Your task to perform on an android device: Play the last video I watched on Youtube Image 0: 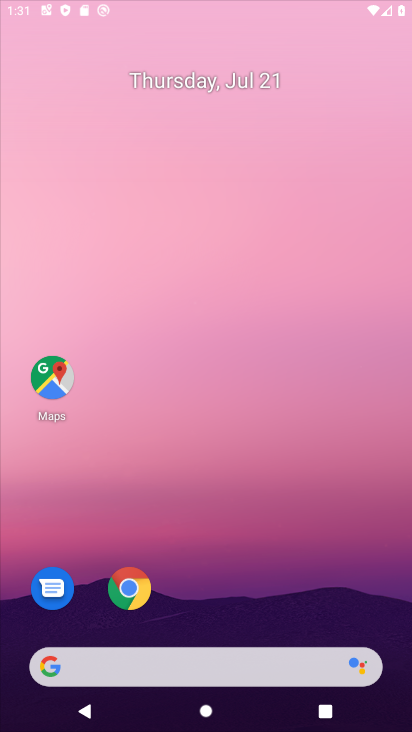
Step 0: press home button
Your task to perform on an android device: Play the last video I watched on Youtube Image 1: 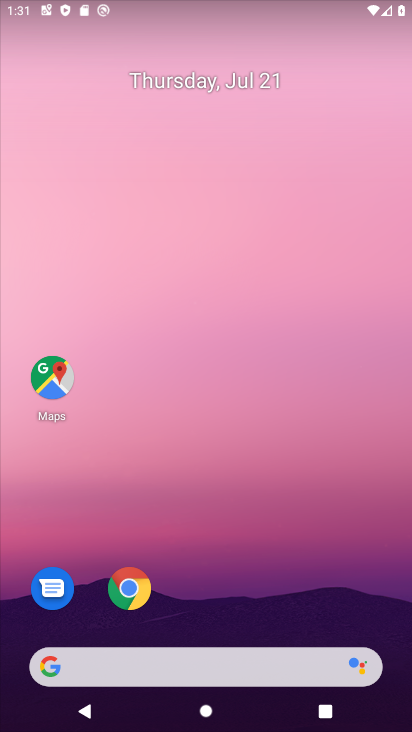
Step 1: drag from (242, 635) to (234, 28)
Your task to perform on an android device: Play the last video I watched on Youtube Image 2: 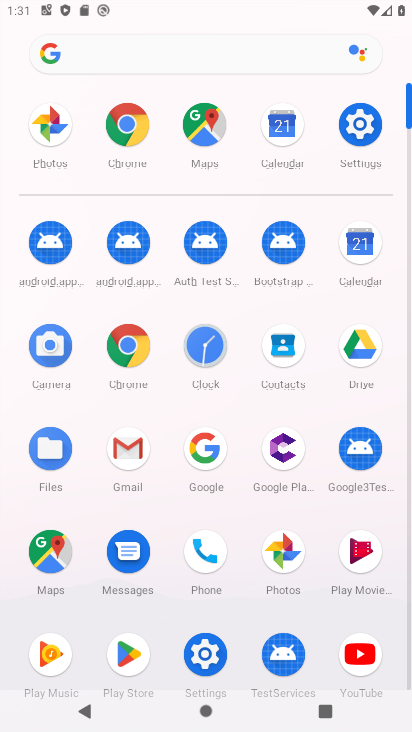
Step 2: click (351, 635)
Your task to perform on an android device: Play the last video I watched on Youtube Image 3: 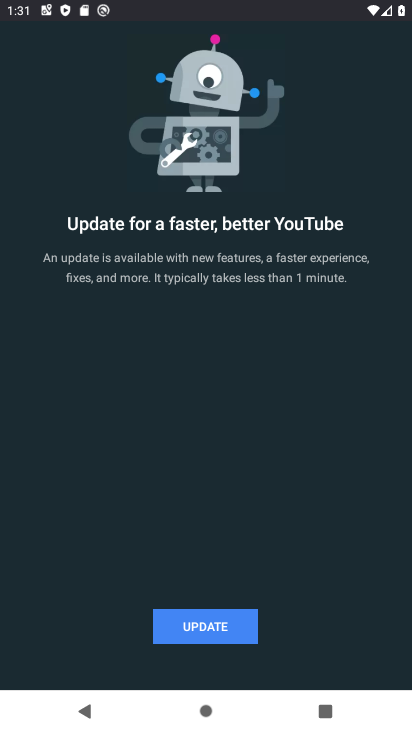
Step 3: drag from (225, 620) to (147, 620)
Your task to perform on an android device: Play the last video I watched on Youtube Image 4: 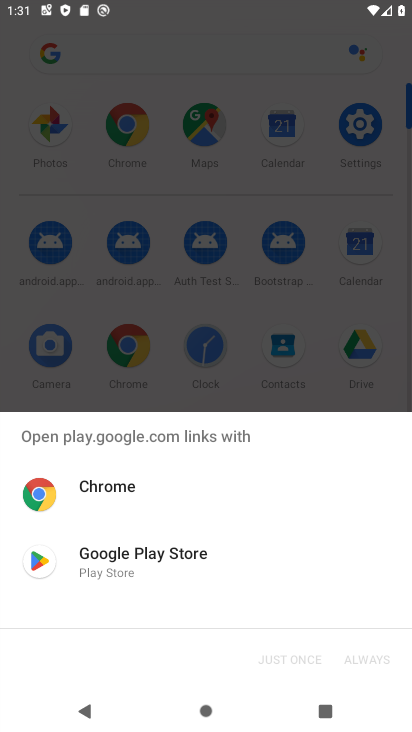
Step 4: click (121, 561)
Your task to perform on an android device: Play the last video I watched on Youtube Image 5: 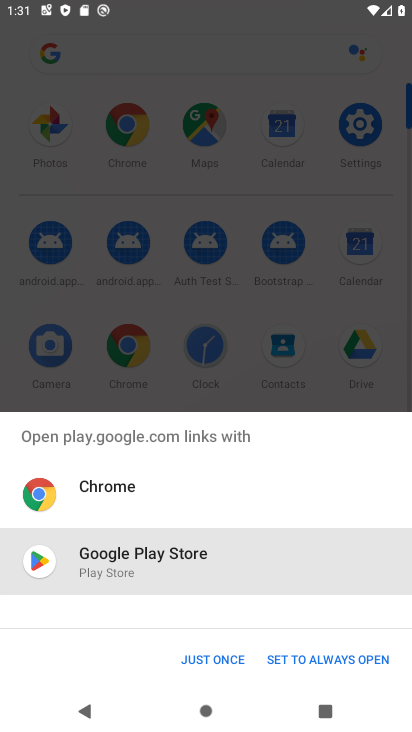
Step 5: click (194, 650)
Your task to perform on an android device: Play the last video I watched on Youtube Image 6: 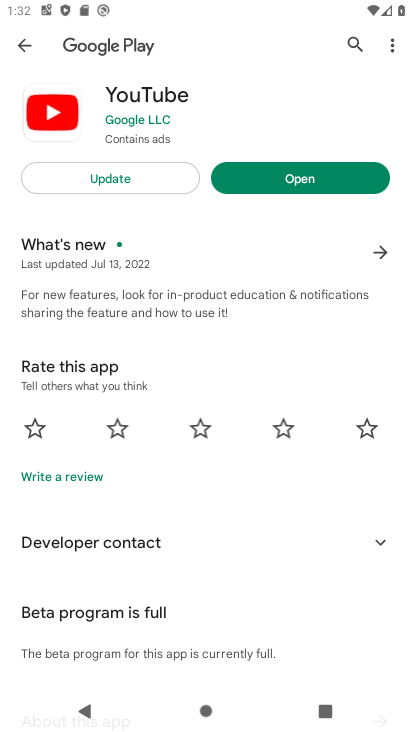
Step 6: click (129, 170)
Your task to perform on an android device: Play the last video I watched on Youtube Image 7: 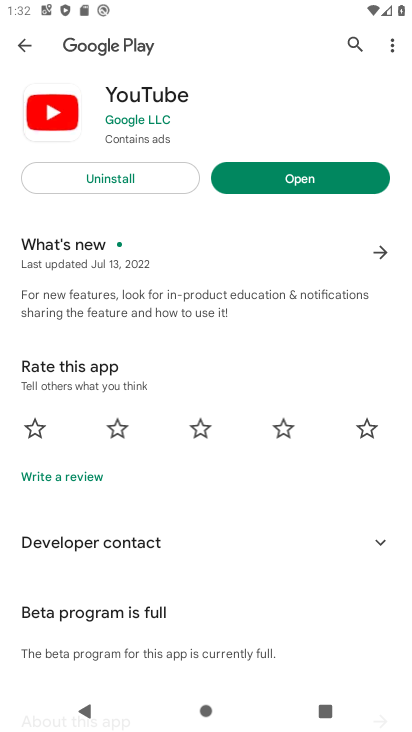
Step 7: click (298, 174)
Your task to perform on an android device: Play the last video I watched on Youtube Image 8: 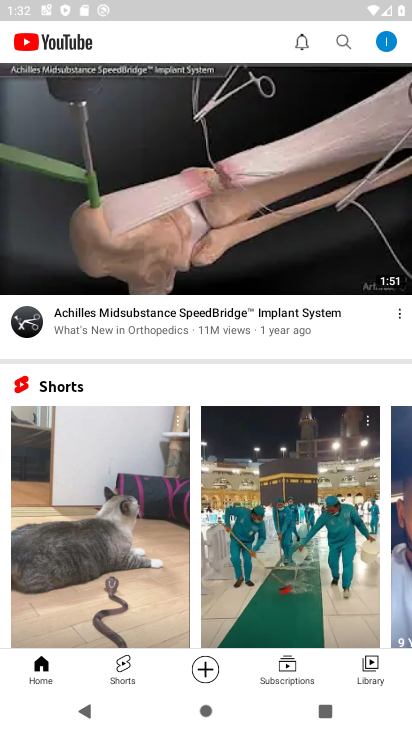
Step 8: drag from (54, 87) to (73, 299)
Your task to perform on an android device: Play the last video I watched on Youtube Image 9: 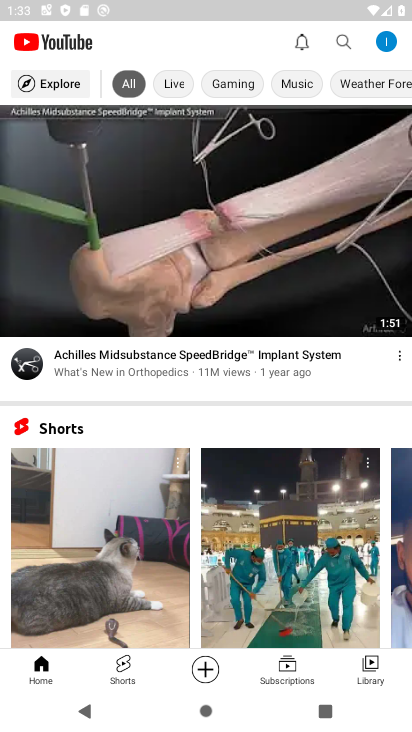
Step 9: click (42, 77)
Your task to perform on an android device: Play the last video I watched on Youtube Image 10: 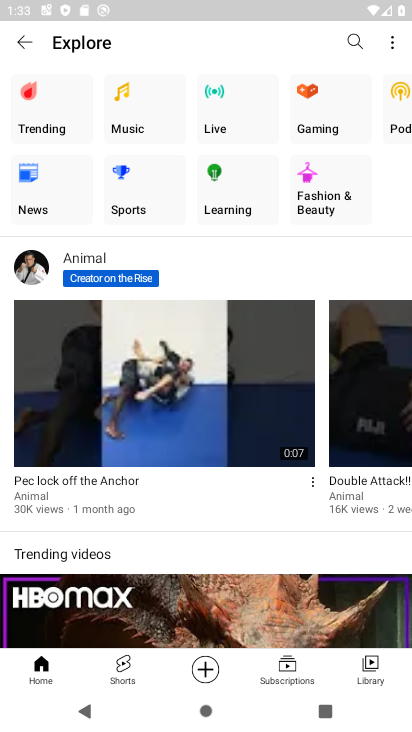
Step 10: click (377, 665)
Your task to perform on an android device: Play the last video I watched on Youtube Image 11: 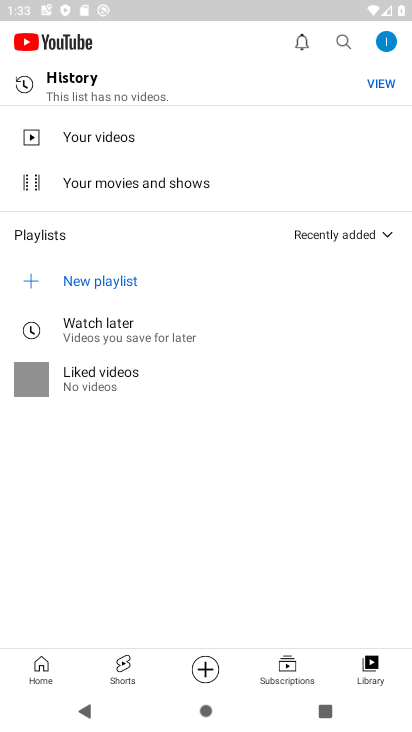
Step 11: drag from (105, 147) to (154, 433)
Your task to perform on an android device: Play the last video I watched on Youtube Image 12: 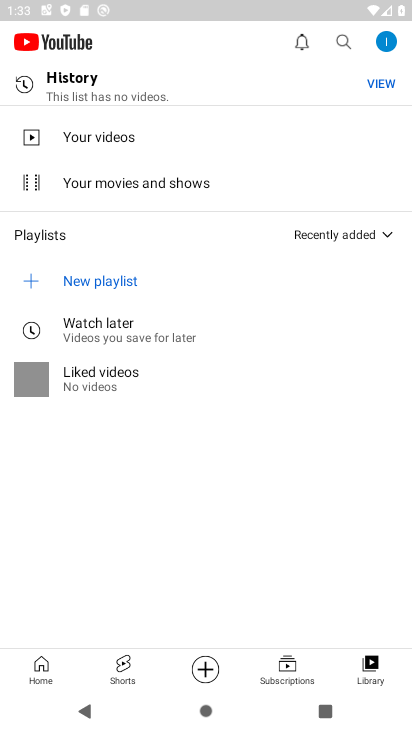
Step 12: click (116, 139)
Your task to perform on an android device: Play the last video I watched on Youtube Image 13: 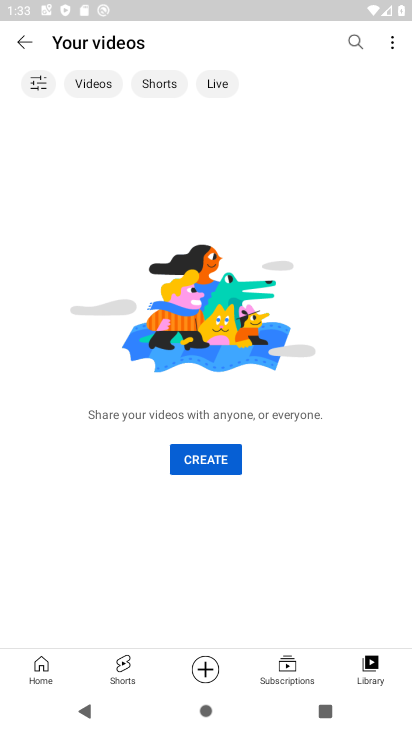
Step 13: task complete